Your task to perform on an android device: Go to location settings Image 0: 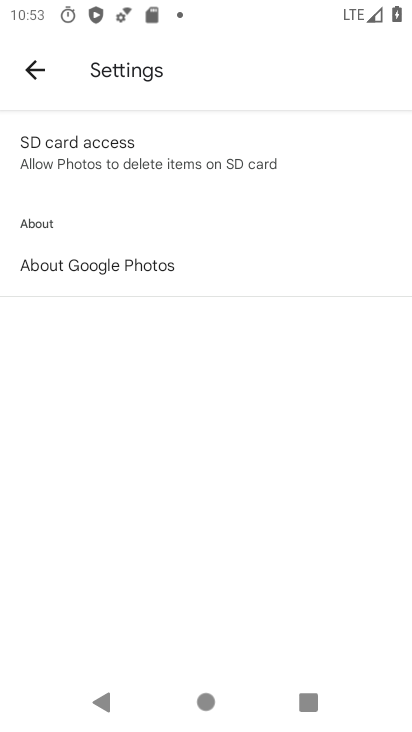
Step 0: press home button
Your task to perform on an android device: Go to location settings Image 1: 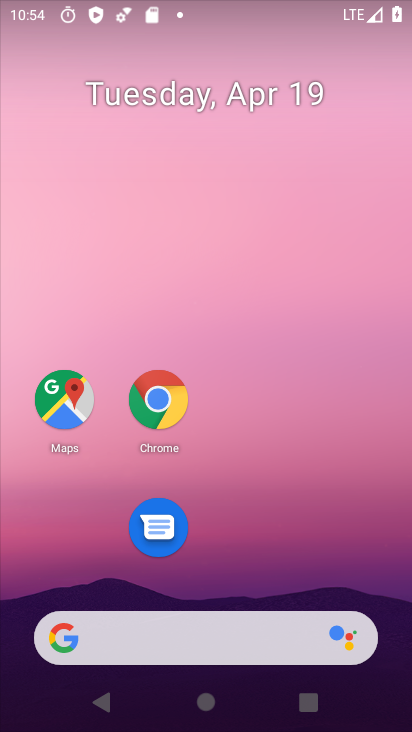
Step 1: drag from (227, 677) to (233, 287)
Your task to perform on an android device: Go to location settings Image 2: 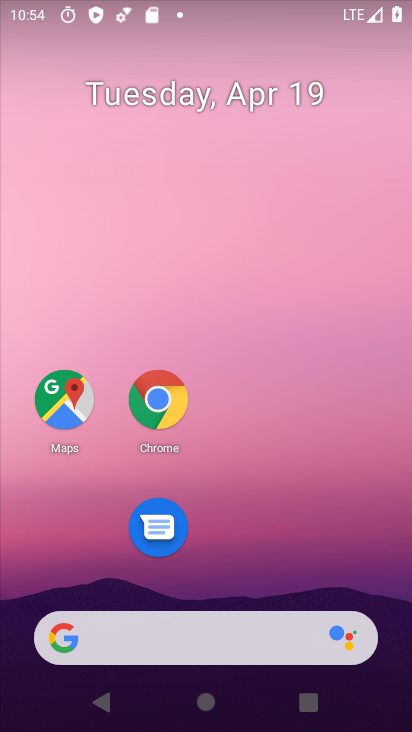
Step 2: drag from (265, 670) to (217, 120)
Your task to perform on an android device: Go to location settings Image 3: 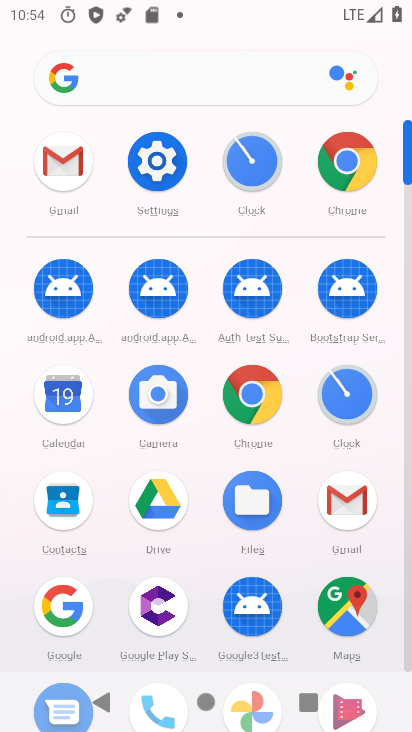
Step 3: click (156, 184)
Your task to perform on an android device: Go to location settings Image 4: 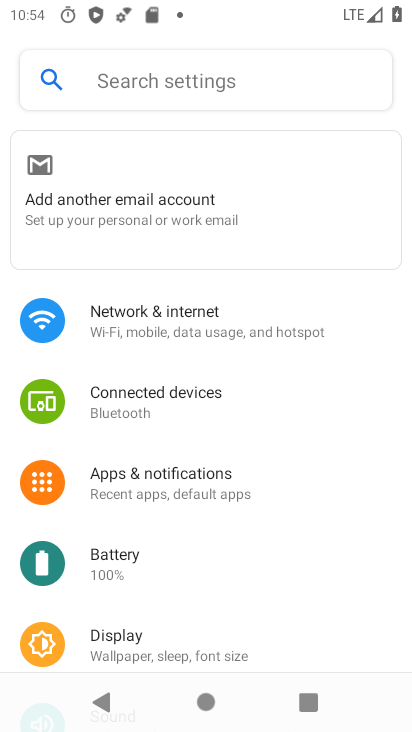
Step 4: click (186, 82)
Your task to perform on an android device: Go to location settings Image 5: 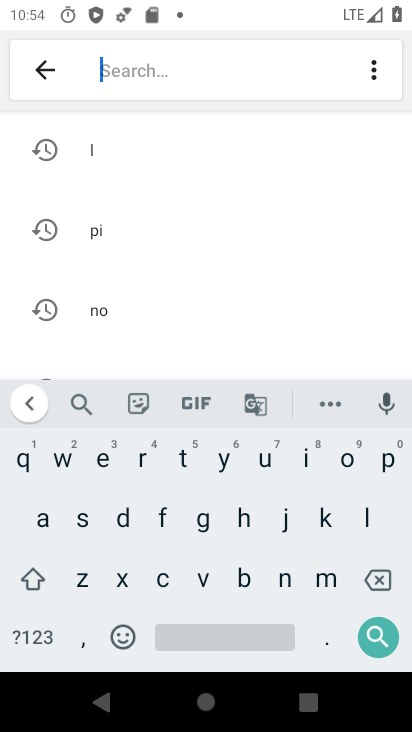
Step 5: click (105, 142)
Your task to perform on an android device: Go to location settings Image 6: 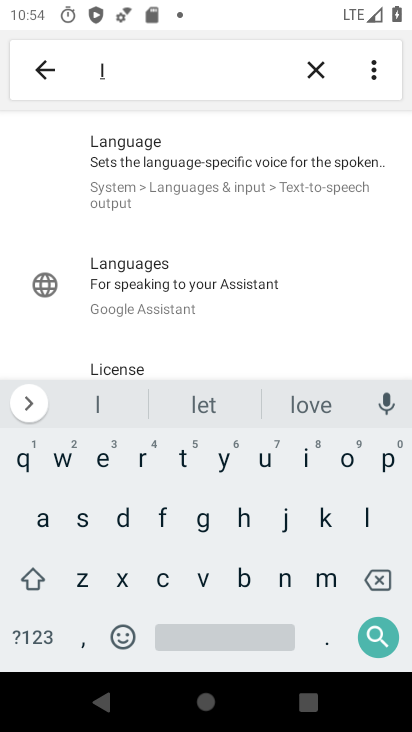
Step 6: drag from (134, 323) to (100, 12)
Your task to perform on an android device: Go to location settings Image 7: 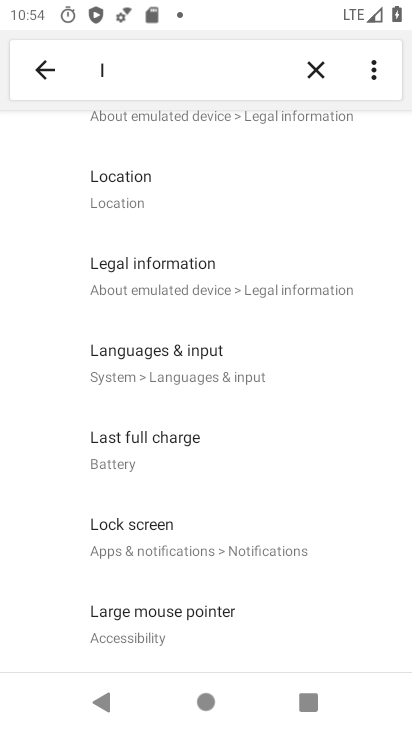
Step 7: click (162, 190)
Your task to perform on an android device: Go to location settings Image 8: 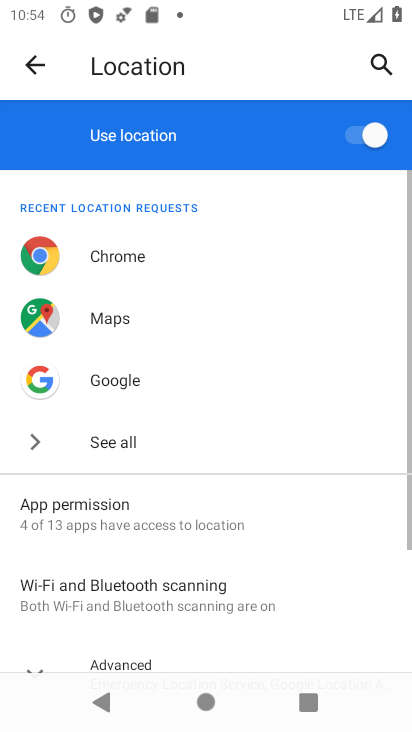
Step 8: drag from (119, 528) to (118, 364)
Your task to perform on an android device: Go to location settings Image 9: 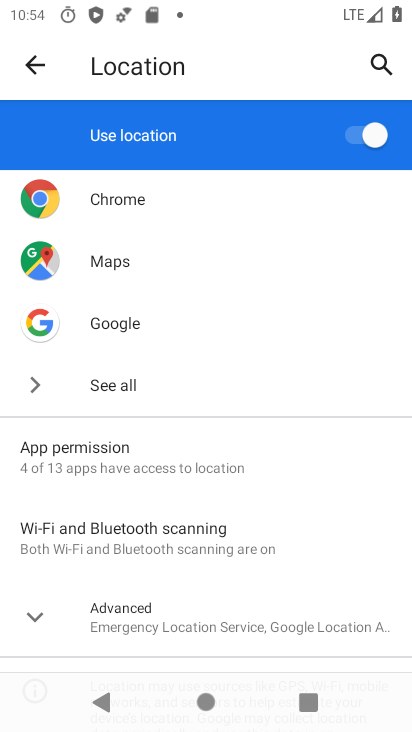
Step 9: click (57, 591)
Your task to perform on an android device: Go to location settings Image 10: 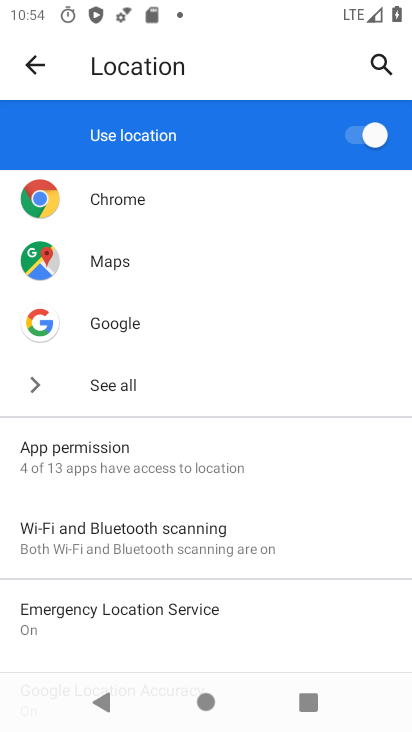
Step 10: task complete